Your task to perform on an android device: turn on wifi Image 0: 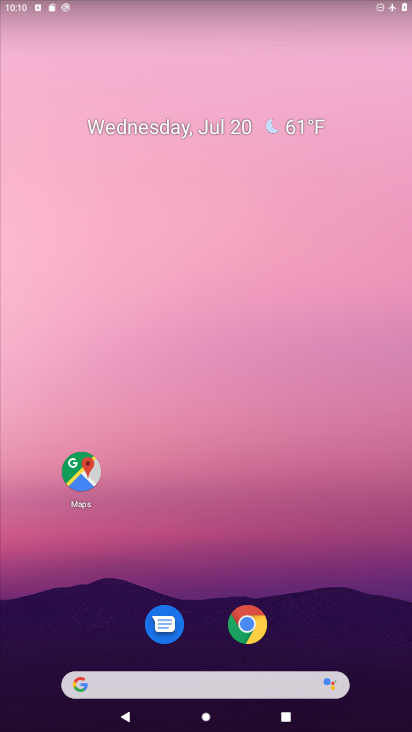
Step 0: drag from (215, 557) to (230, 185)
Your task to perform on an android device: turn on wifi Image 1: 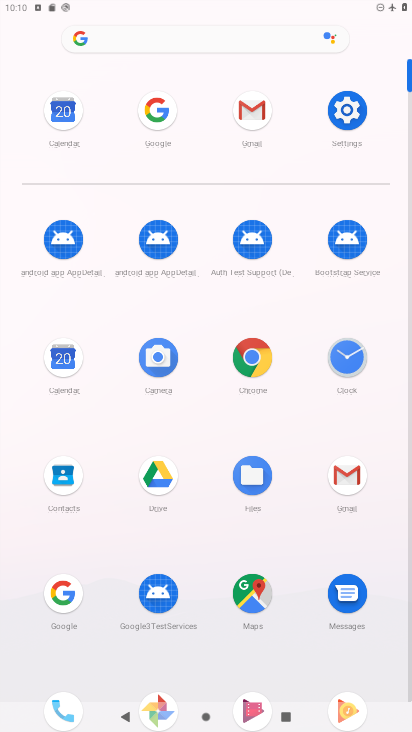
Step 1: click (349, 116)
Your task to perform on an android device: turn on wifi Image 2: 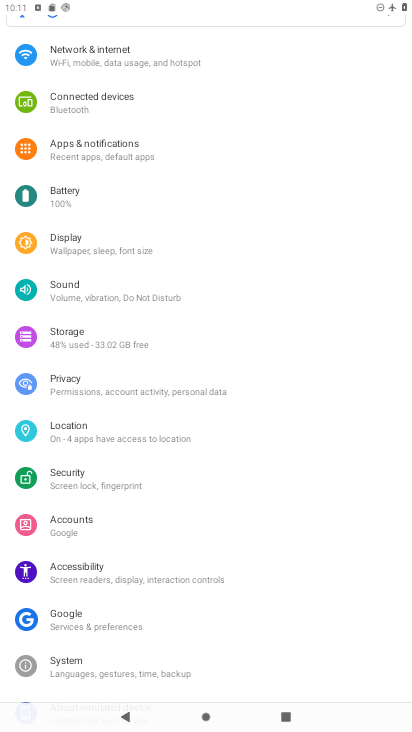
Step 2: click (94, 57)
Your task to perform on an android device: turn on wifi Image 3: 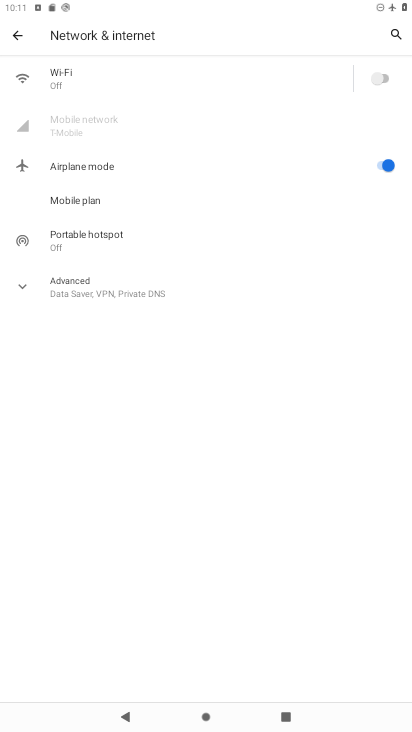
Step 3: click (381, 74)
Your task to perform on an android device: turn on wifi Image 4: 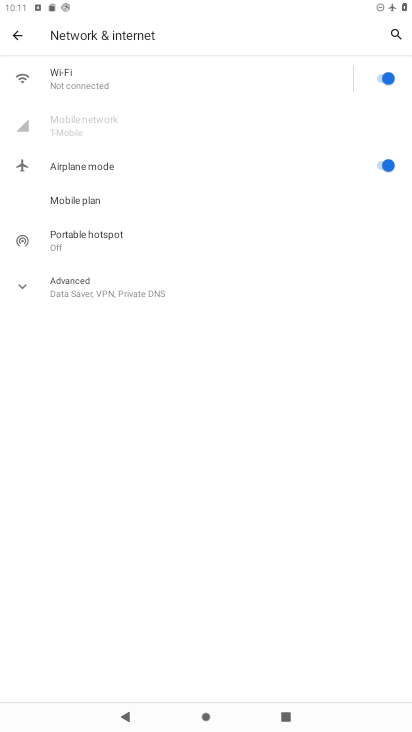
Step 4: task complete